Your task to perform on an android device: set an alarm Image 0: 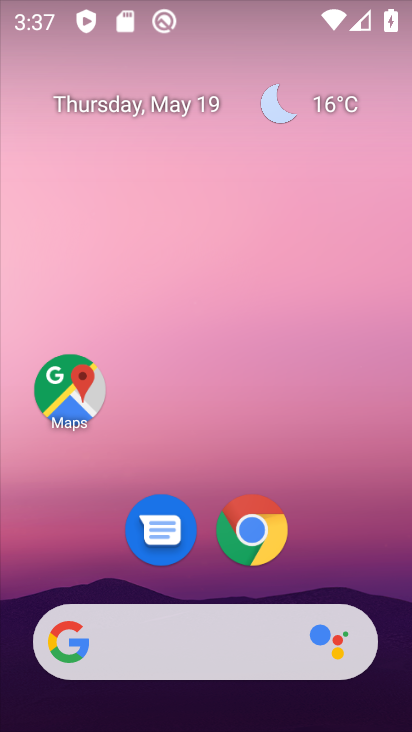
Step 0: drag from (330, 527) to (367, 147)
Your task to perform on an android device: set an alarm Image 1: 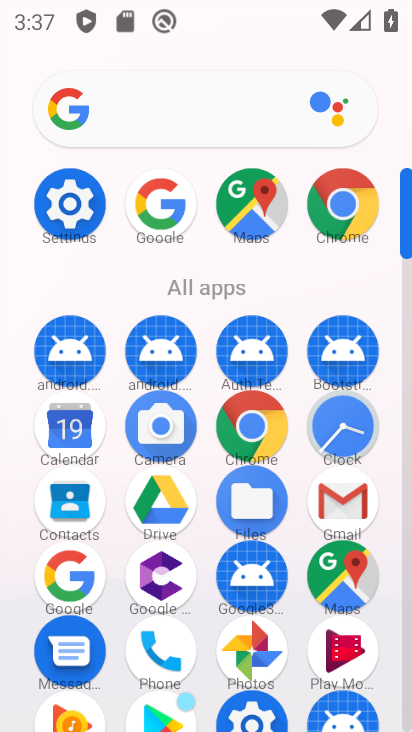
Step 1: click (349, 435)
Your task to perform on an android device: set an alarm Image 2: 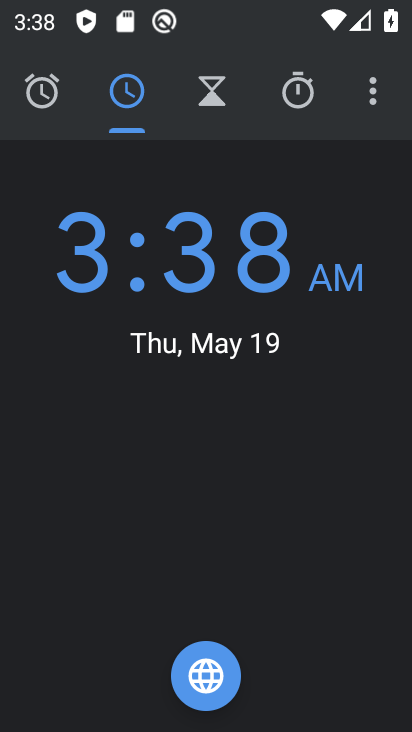
Step 2: drag from (211, 690) to (39, 93)
Your task to perform on an android device: set an alarm Image 3: 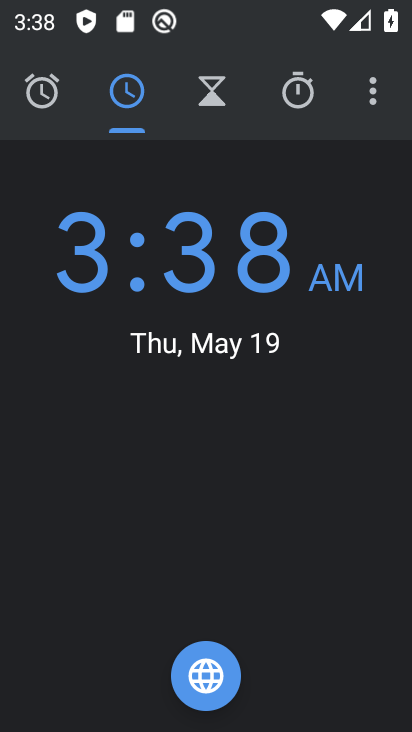
Step 3: click (39, 92)
Your task to perform on an android device: set an alarm Image 4: 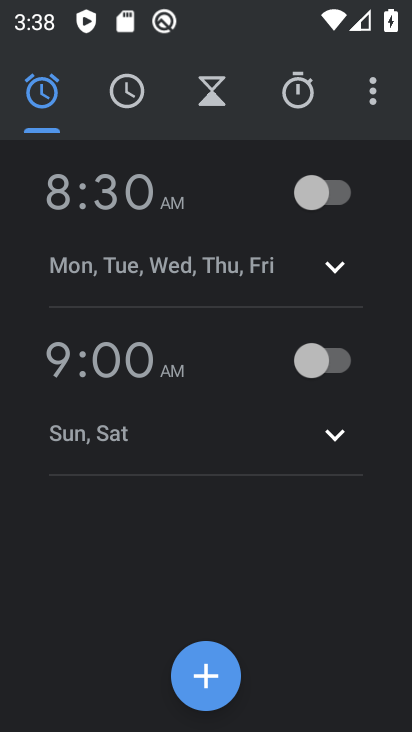
Step 4: click (216, 677)
Your task to perform on an android device: set an alarm Image 5: 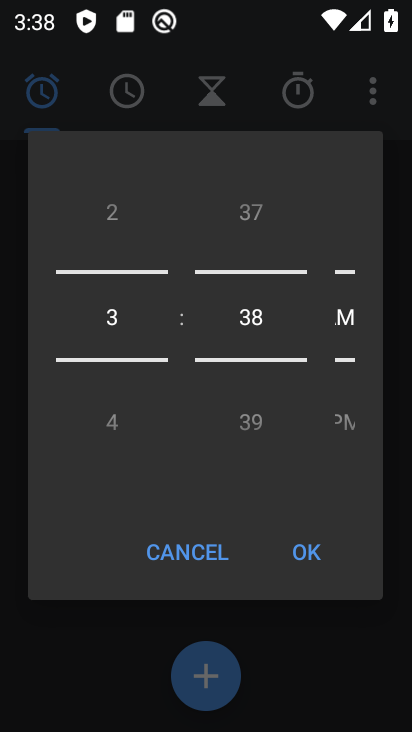
Step 5: click (296, 555)
Your task to perform on an android device: set an alarm Image 6: 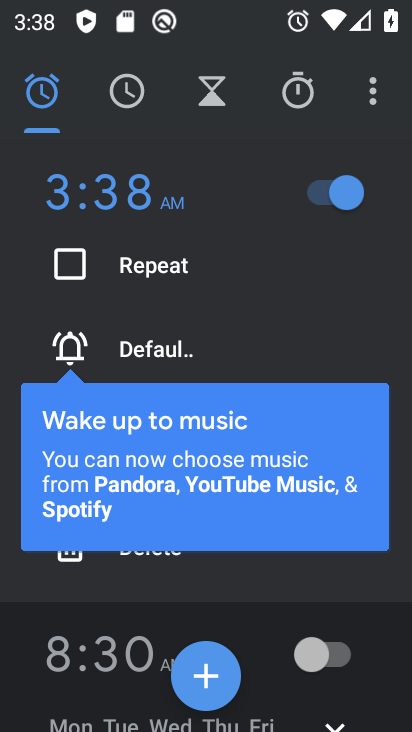
Step 6: task complete